Your task to perform on an android device: Open network settings Image 0: 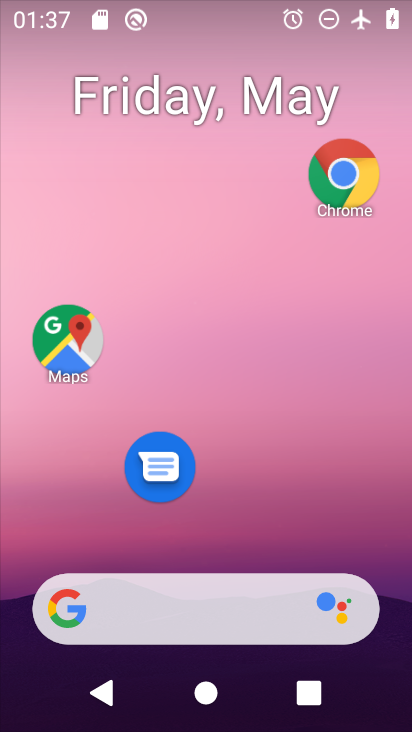
Step 0: drag from (273, 510) to (259, 186)
Your task to perform on an android device: Open network settings Image 1: 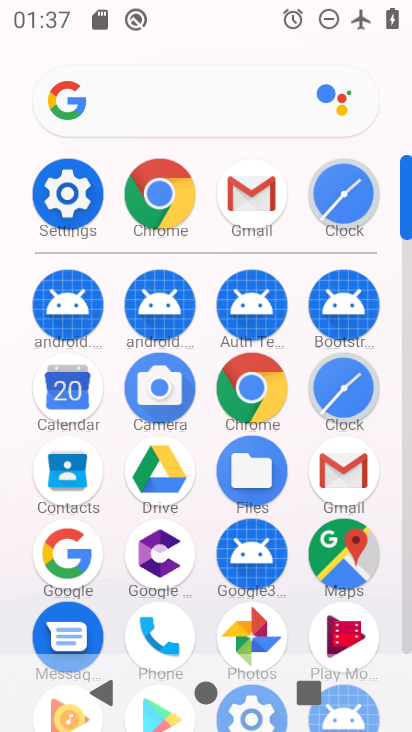
Step 1: click (80, 202)
Your task to perform on an android device: Open network settings Image 2: 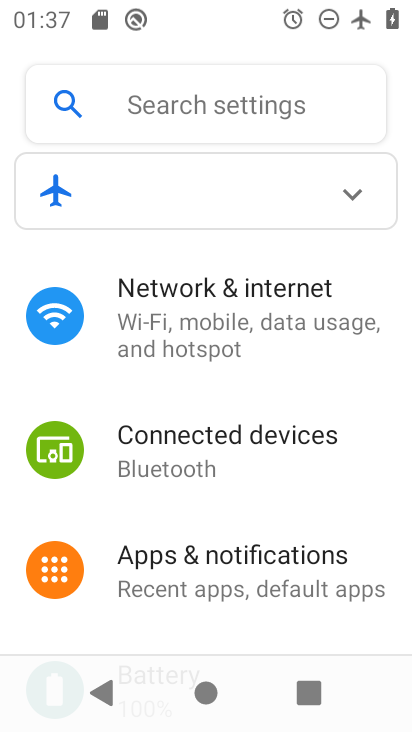
Step 2: click (204, 288)
Your task to perform on an android device: Open network settings Image 3: 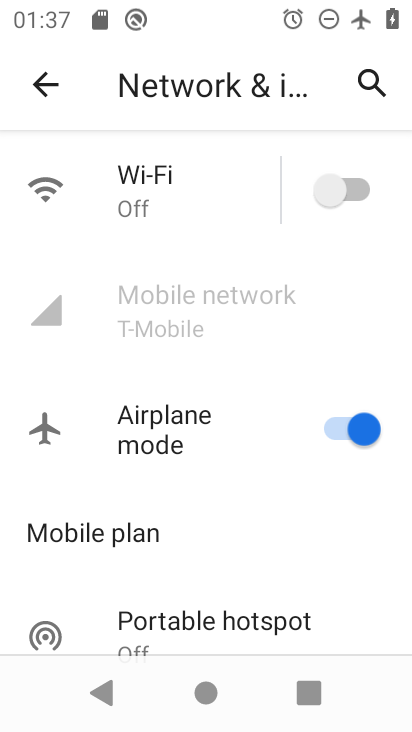
Step 3: task complete